Your task to perform on an android device: manage bookmarks in the chrome app Image 0: 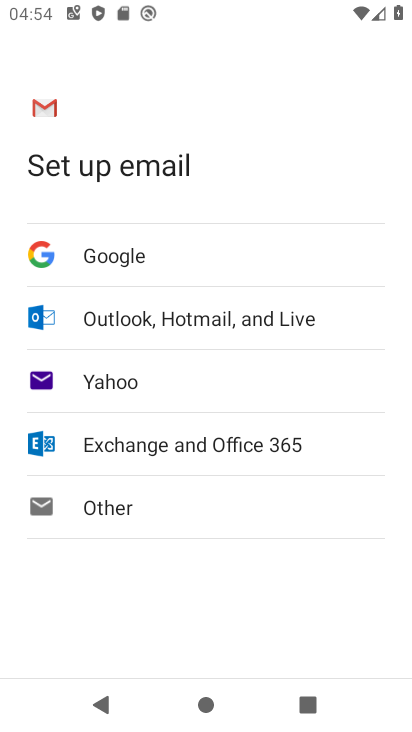
Step 0: press home button
Your task to perform on an android device: manage bookmarks in the chrome app Image 1: 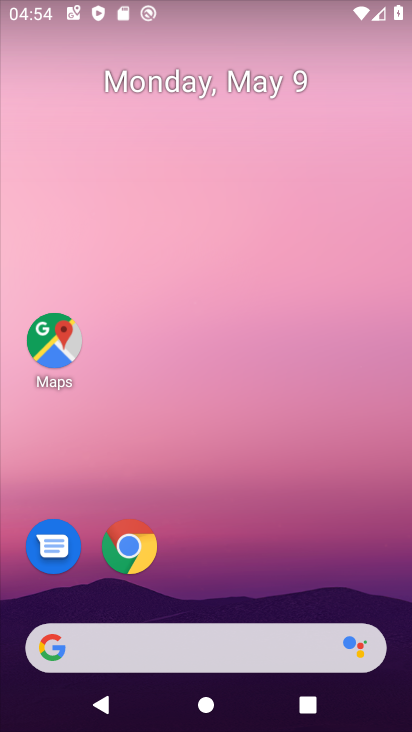
Step 1: click (132, 541)
Your task to perform on an android device: manage bookmarks in the chrome app Image 2: 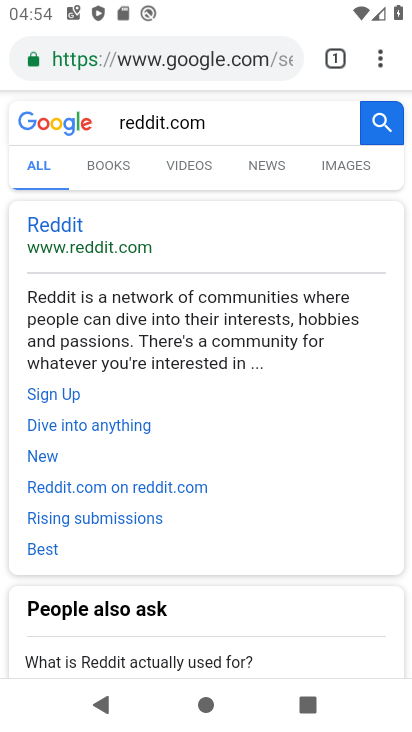
Step 2: click (376, 55)
Your task to perform on an android device: manage bookmarks in the chrome app Image 3: 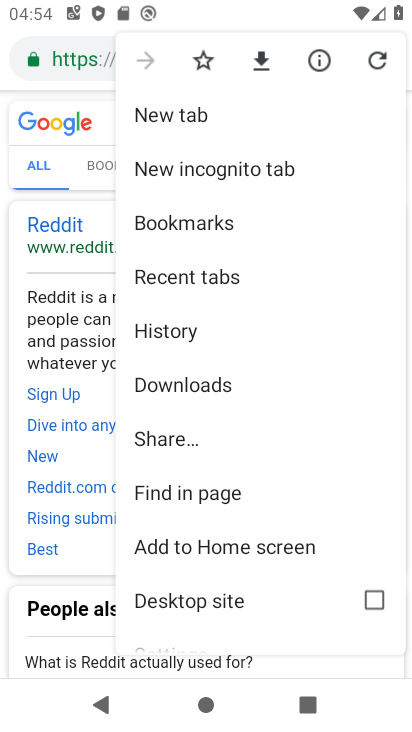
Step 3: click (206, 219)
Your task to perform on an android device: manage bookmarks in the chrome app Image 4: 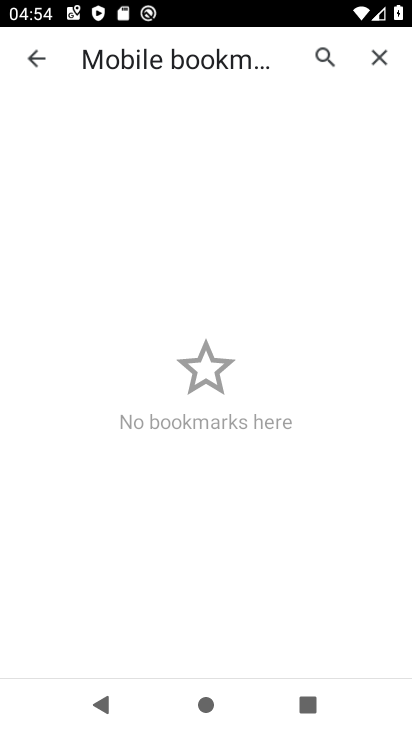
Step 4: task complete